Your task to perform on an android device: Open settings on Google Maps Image 0: 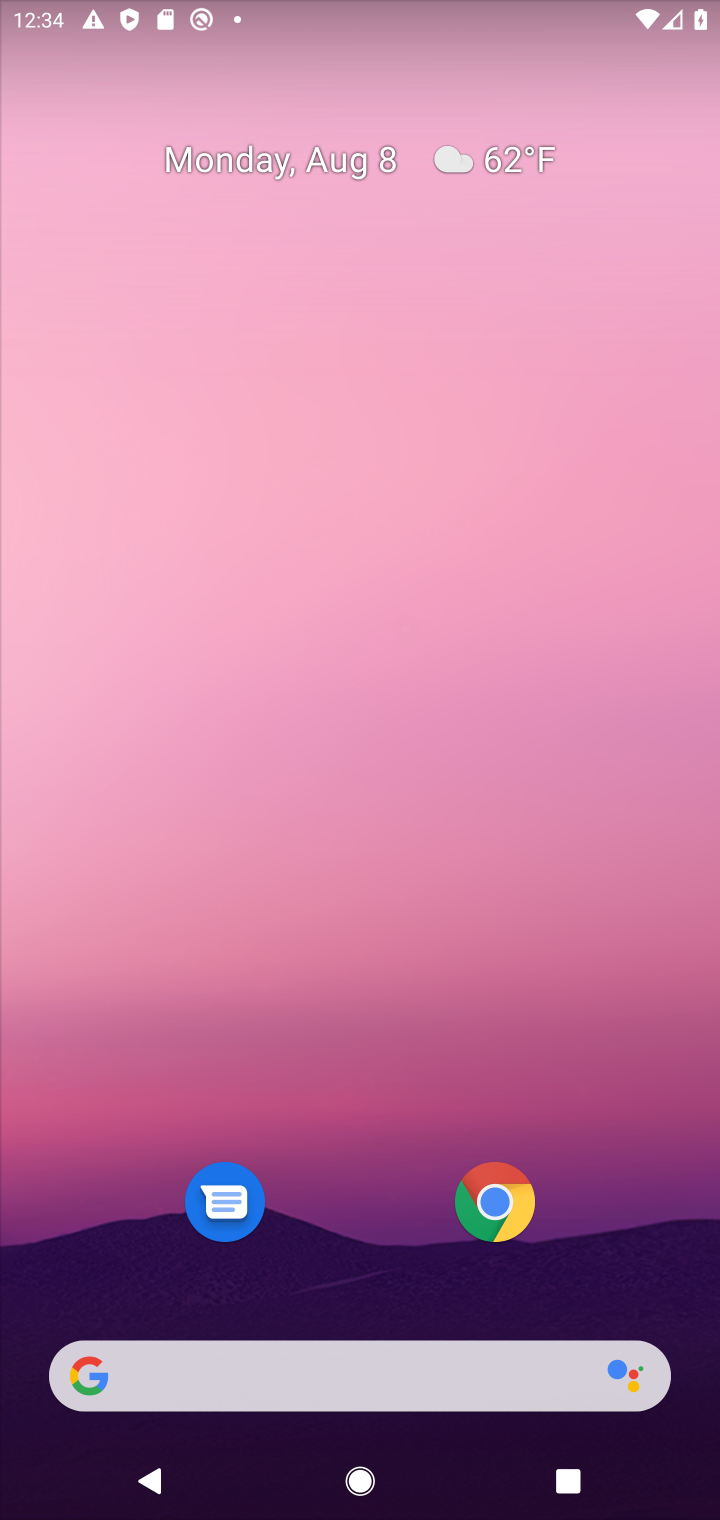
Step 0: click (340, 1280)
Your task to perform on an android device: Open settings on Google Maps Image 1: 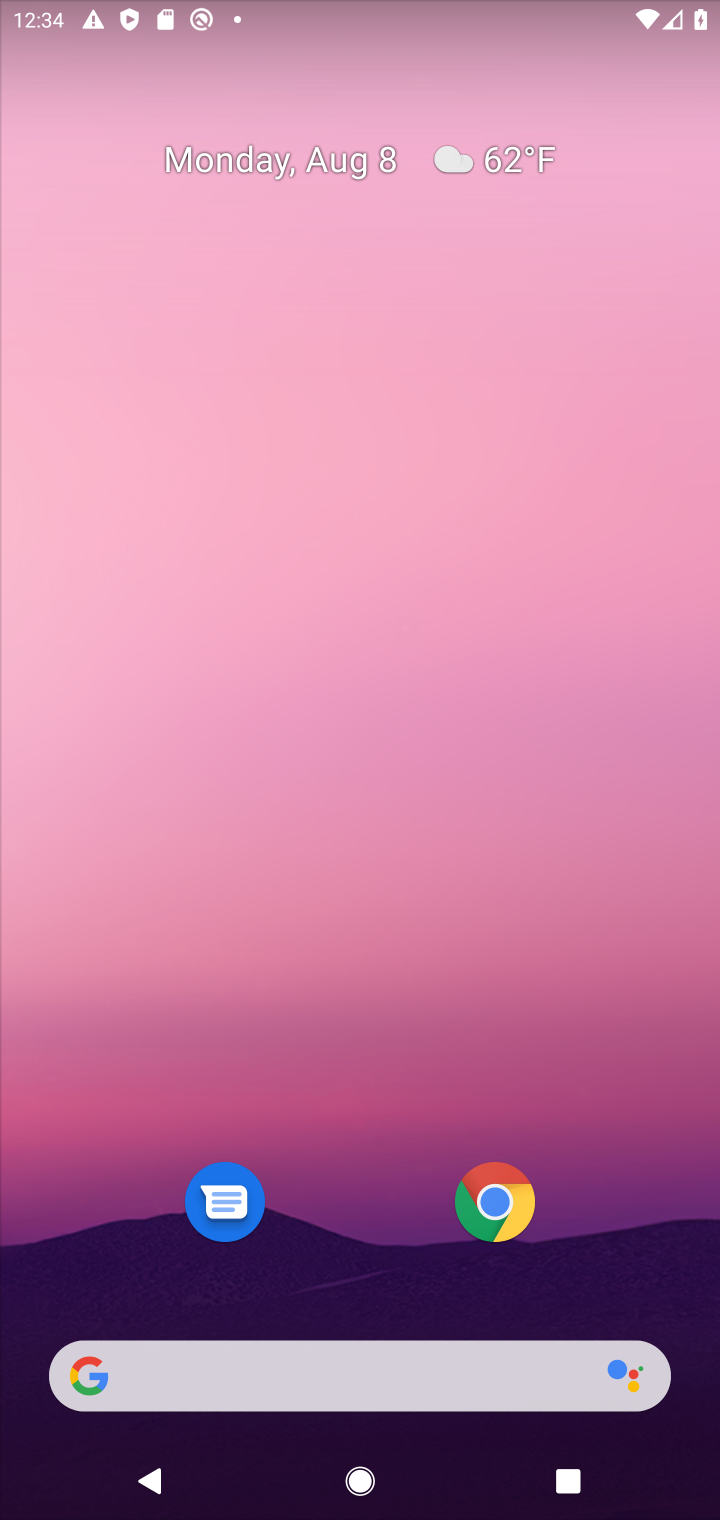
Step 1: drag from (309, 1179) to (253, 75)
Your task to perform on an android device: Open settings on Google Maps Image 2: 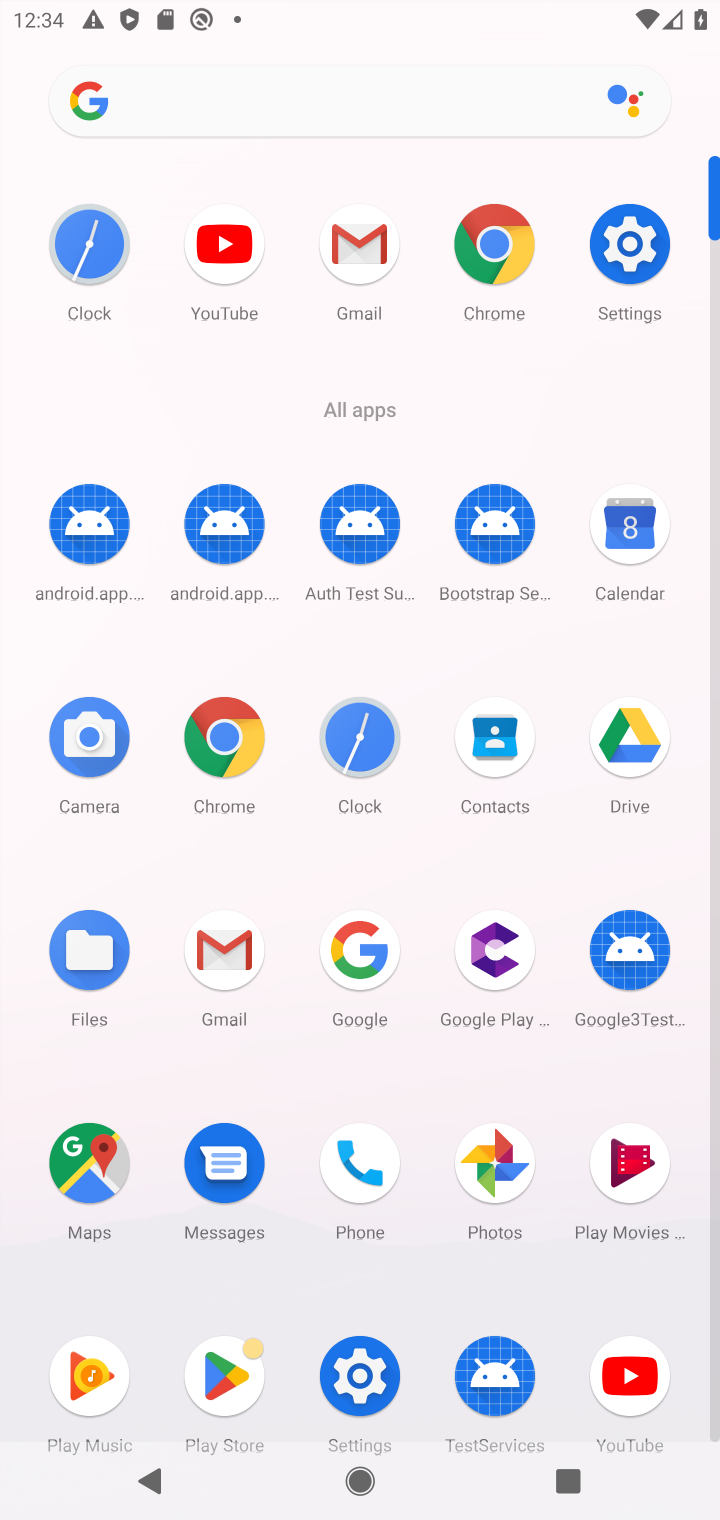
Step 2: click (91, 1162)
Your task to perform on an android device: Open settings on Google Maps Image 3: 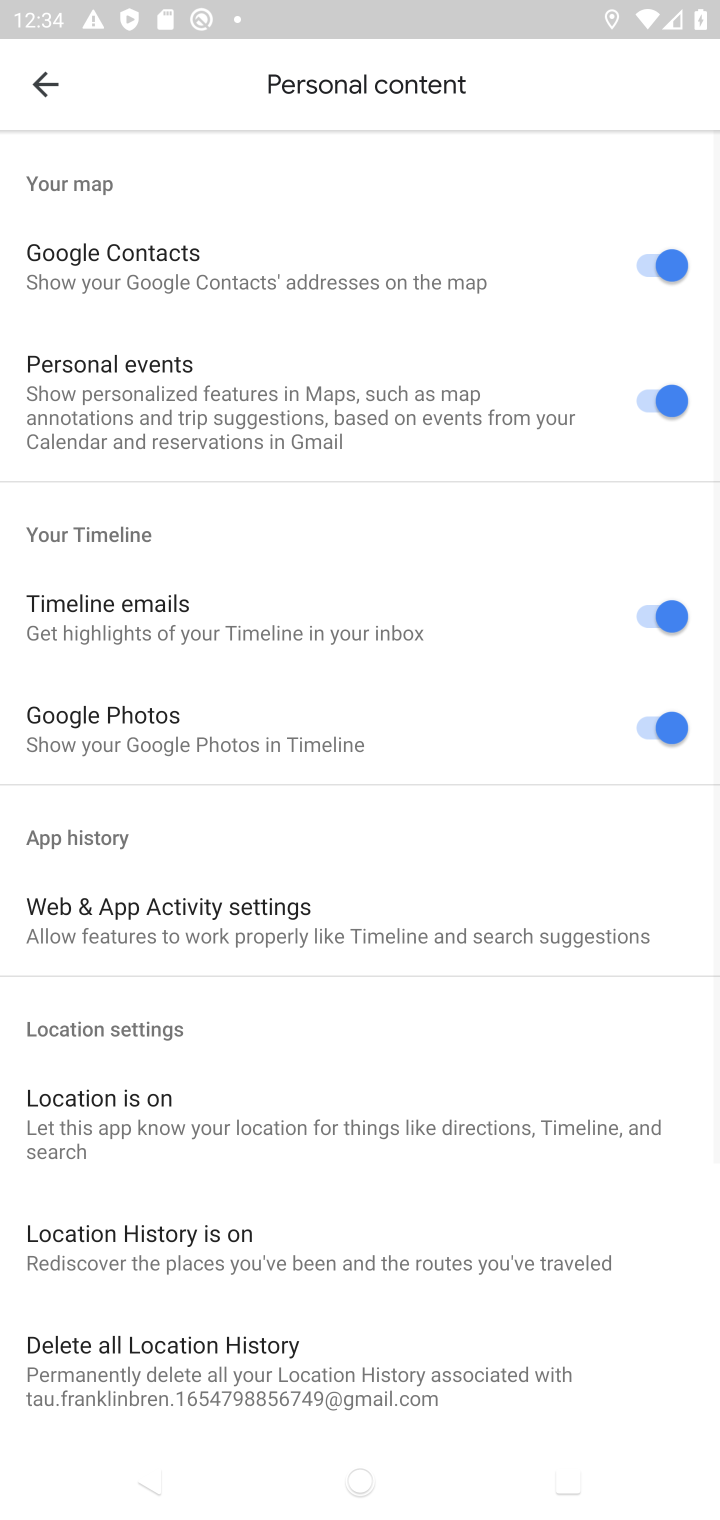
Step 3: click (37, 95)
Your task to perform on an android device: Open settings on Google Maps Image 4: 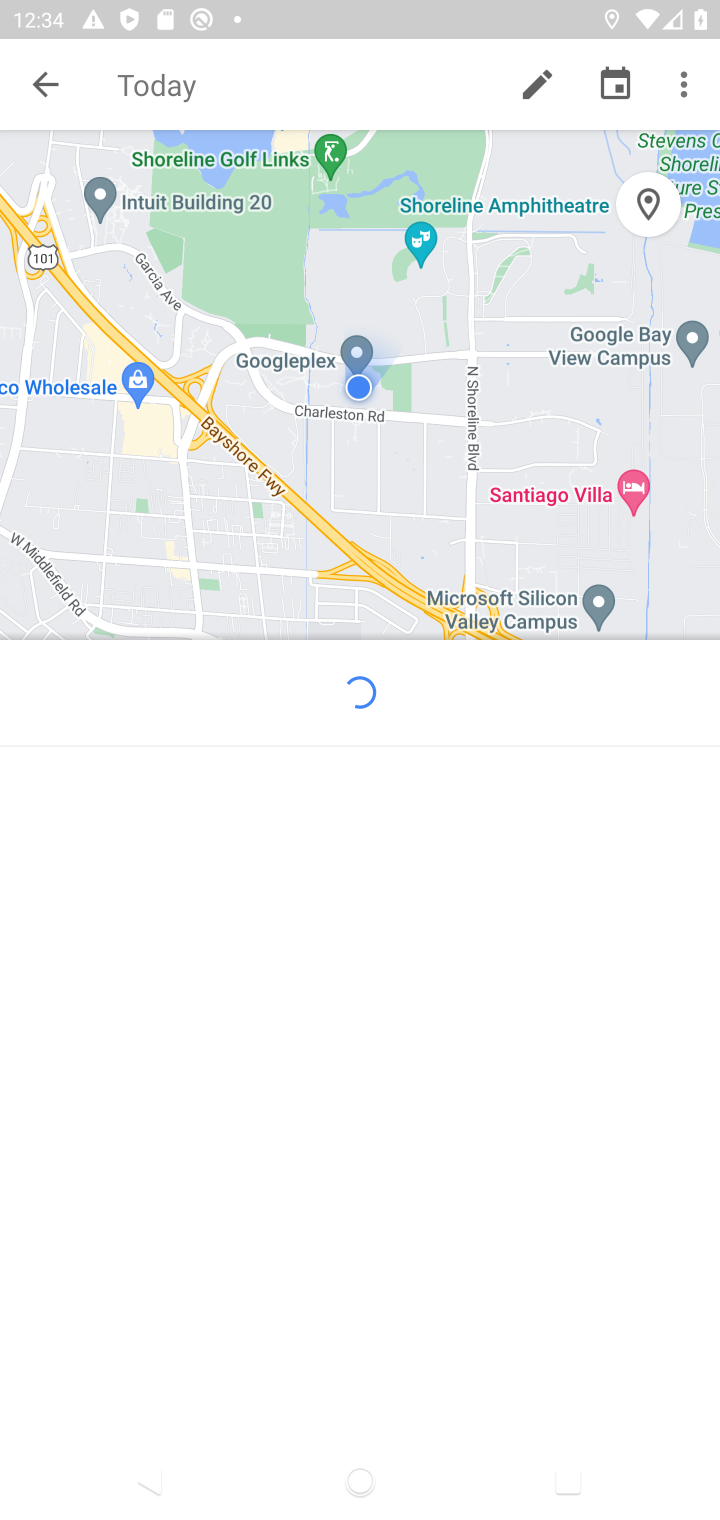
Step 4: click (50, 86)
Your task to perform on an android device: Open settings on Google Maps Image 5: 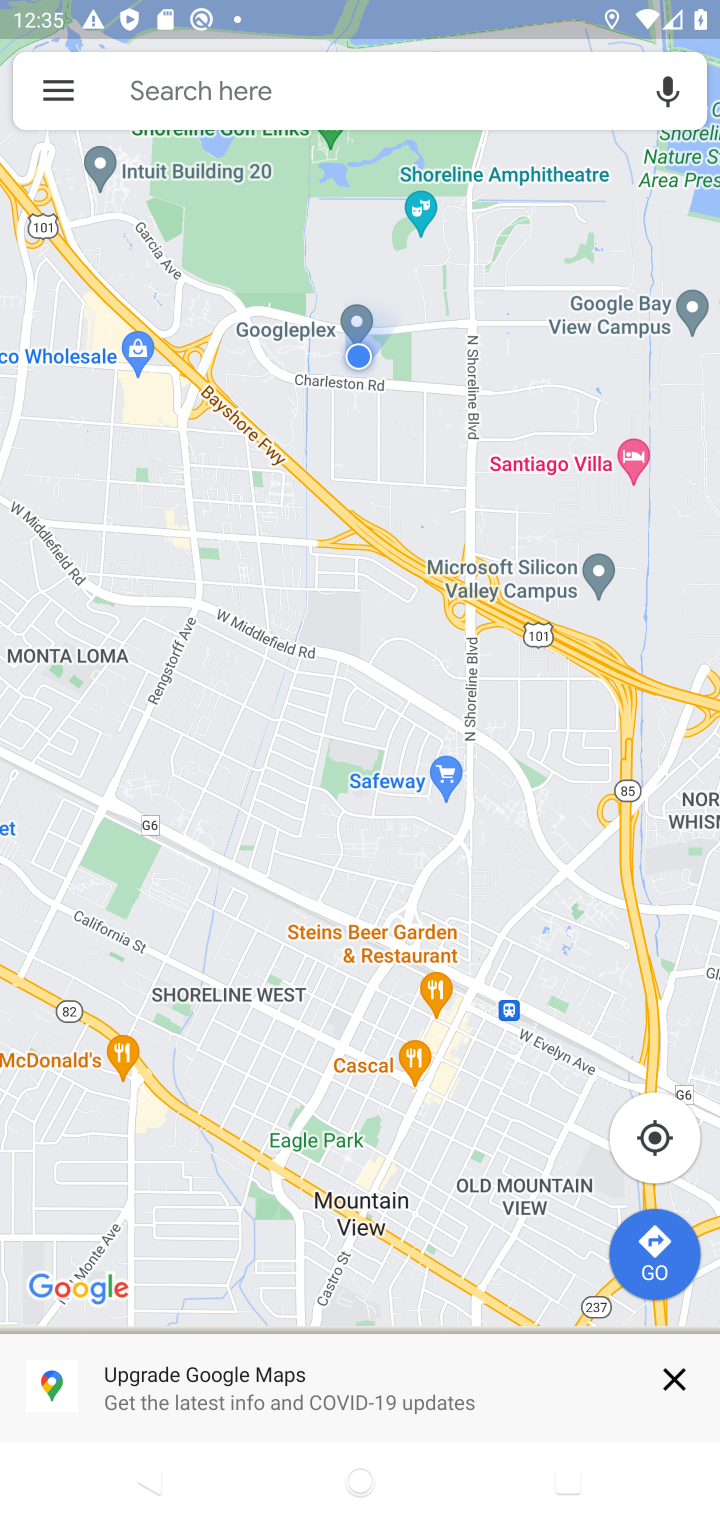
Step 5: click (56, 90)
Your task to perform on an android device: Open settings on Google Maps Image 6: 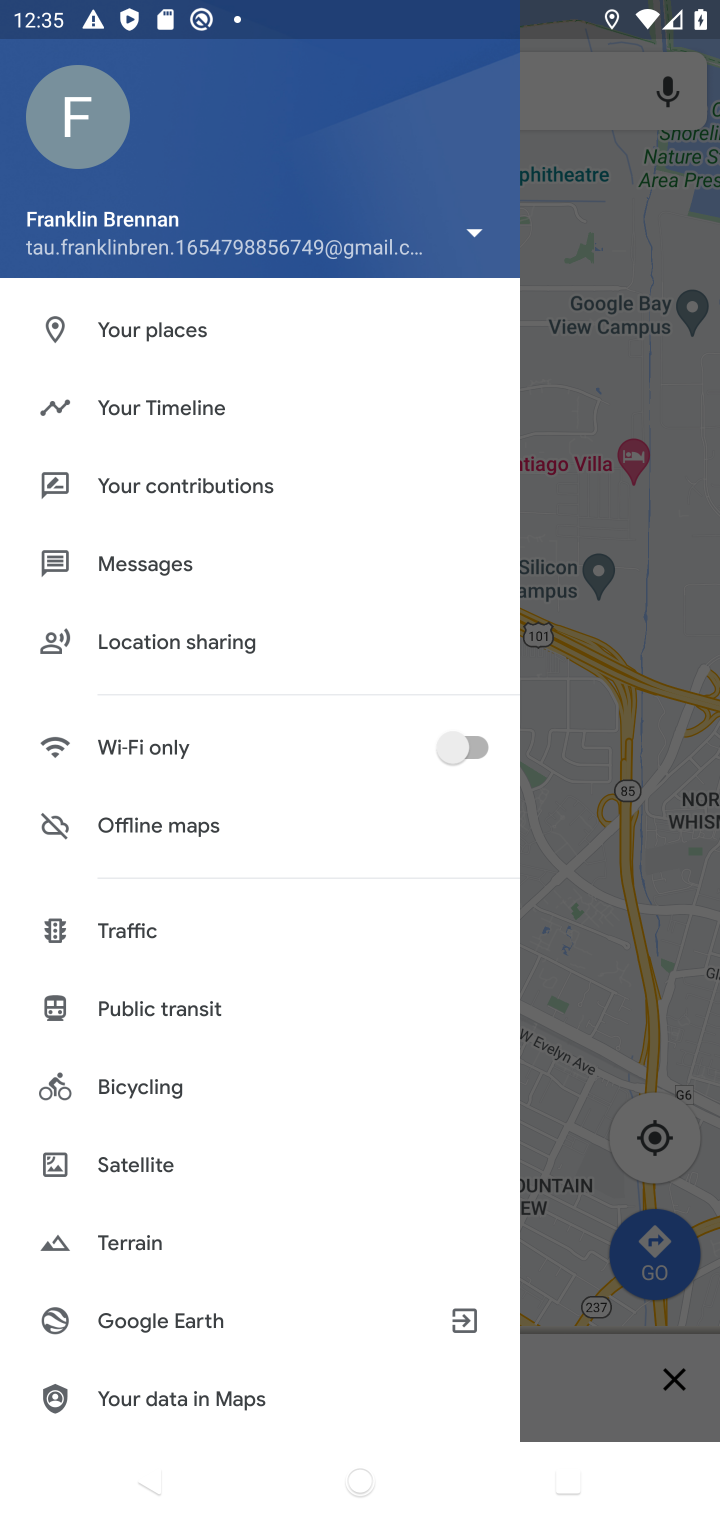
Step 6: drag from (200, 1139) to (213, 580)
Your task to perform on an android device: Open settings on Google Maps Image 7: 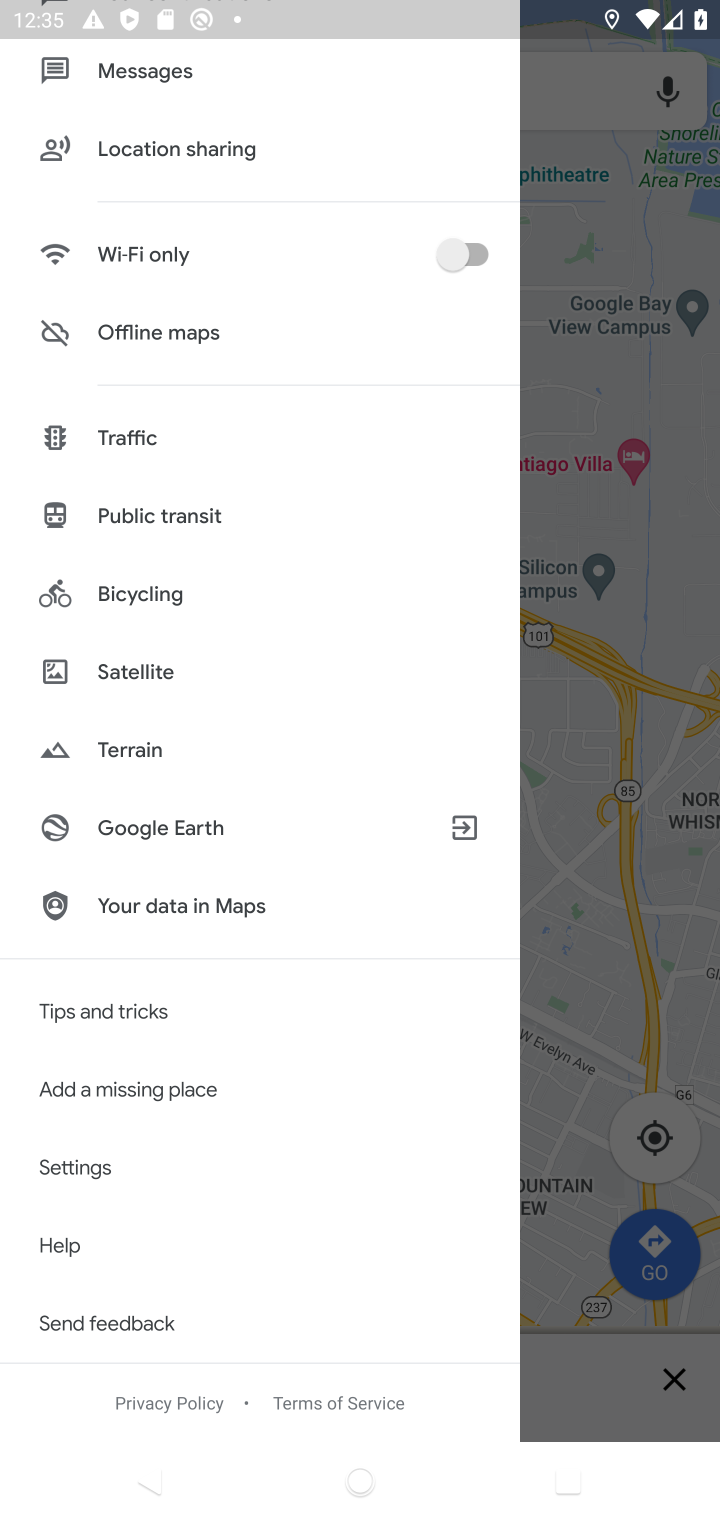
Step 7: click (63, 1166)
Your task to perform on an android device: Open settings on Google Maps Image 8: 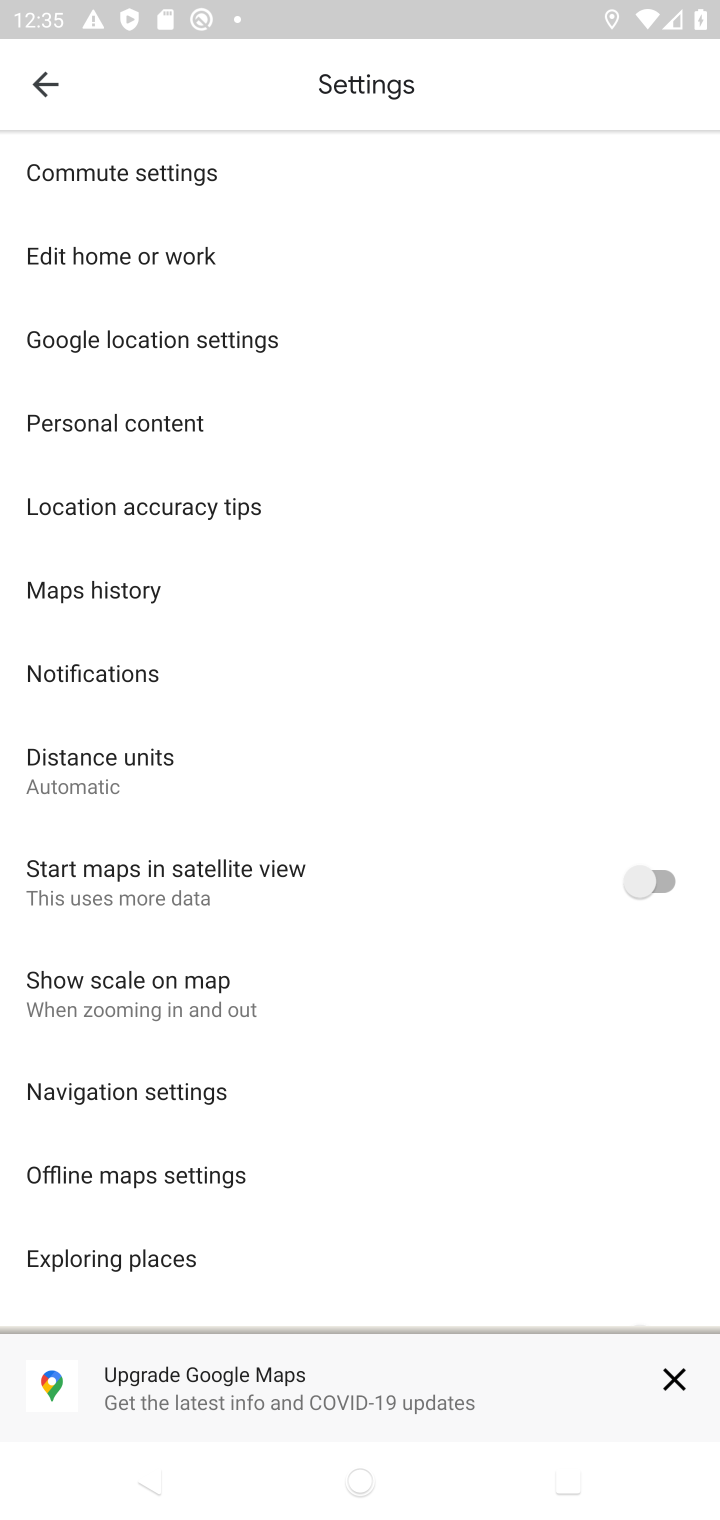
Step 8: task complete